Your task to perform on an android device: Open Maps and search for coffee Image 0: 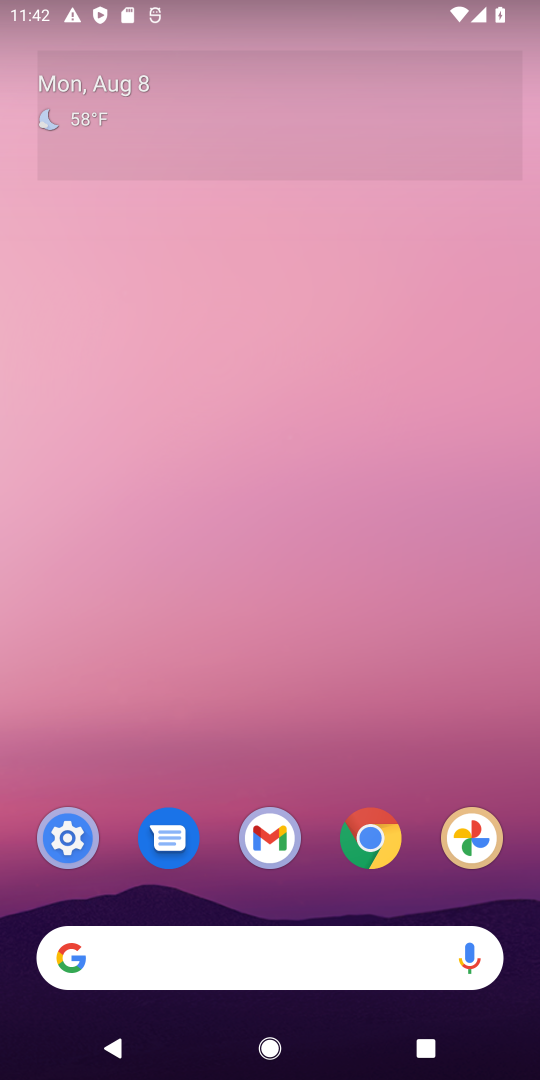
Step 0: press home button
Your task to perform on an android device: Open Maps and search for coffee Image 1: 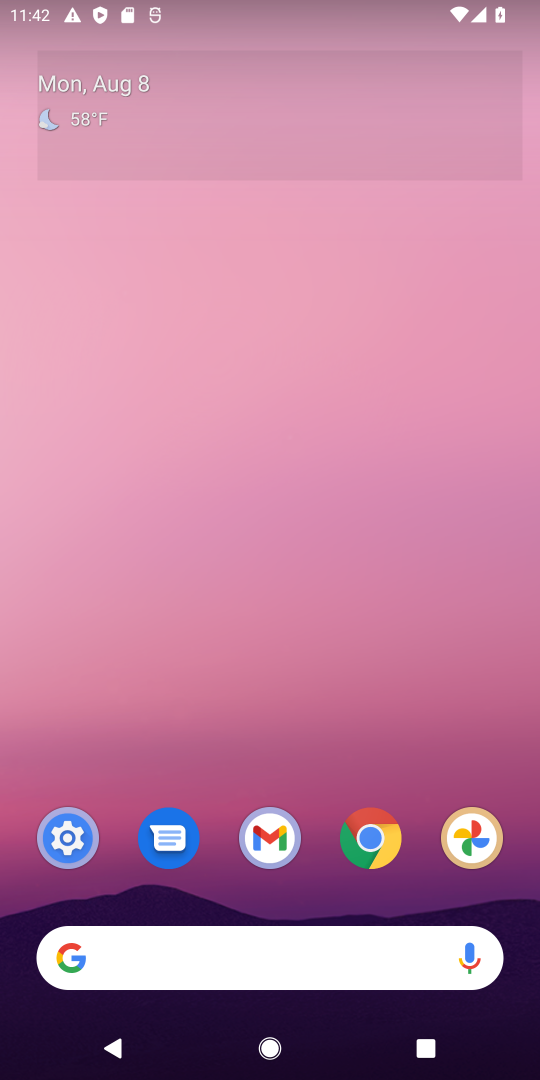
Step 1: drag from (346, 895) to (372, 342)
Your task to perform on an android device: Open Maps and search for coffee Image 2: 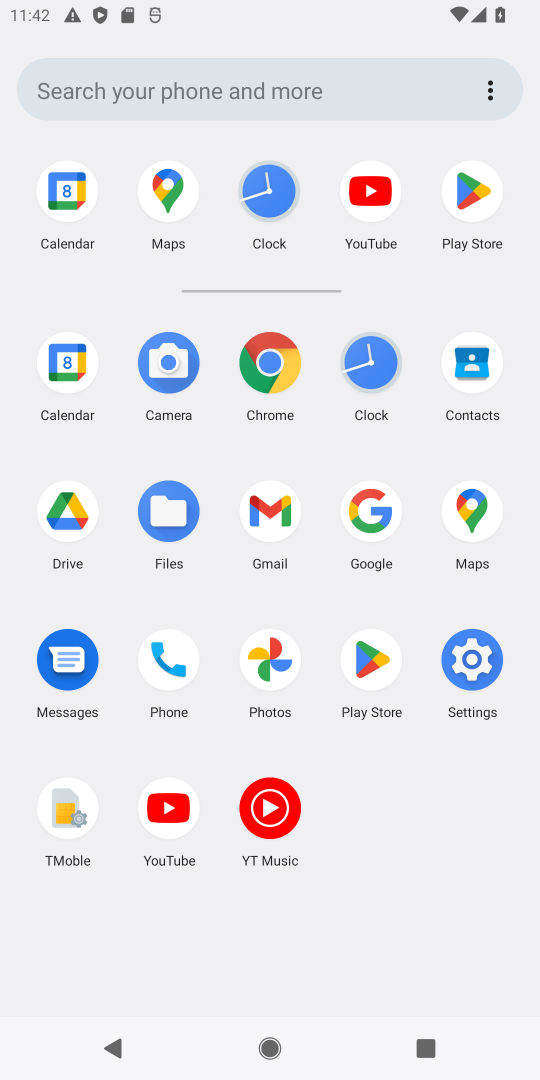
Step 2: click (173, 191)
Your task to perform on an android device: Open Maps and search for coffee Image 3: 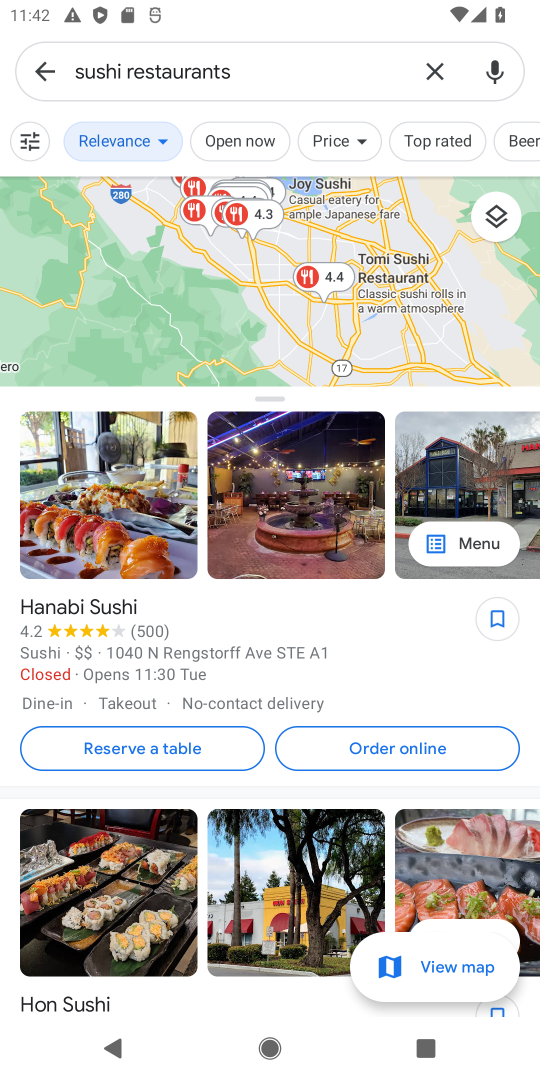
Step 3: click (42, 79)
Your task to perform on an android device: Open Maps and search for coffee Image 4: 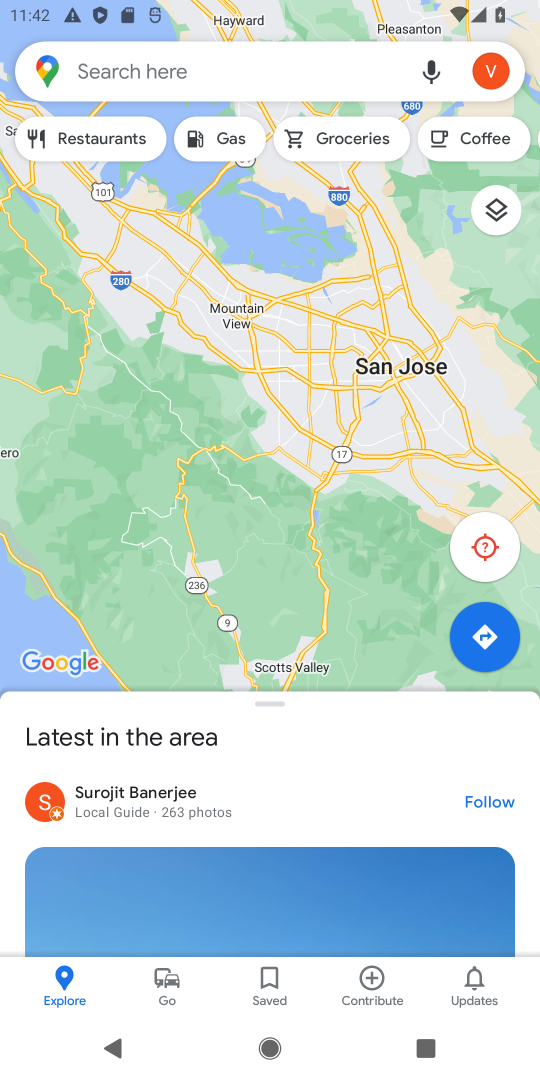
Step 4: click (206, 48)
Your task to perform on an android device: Open Maps and search for coffee Image 5: 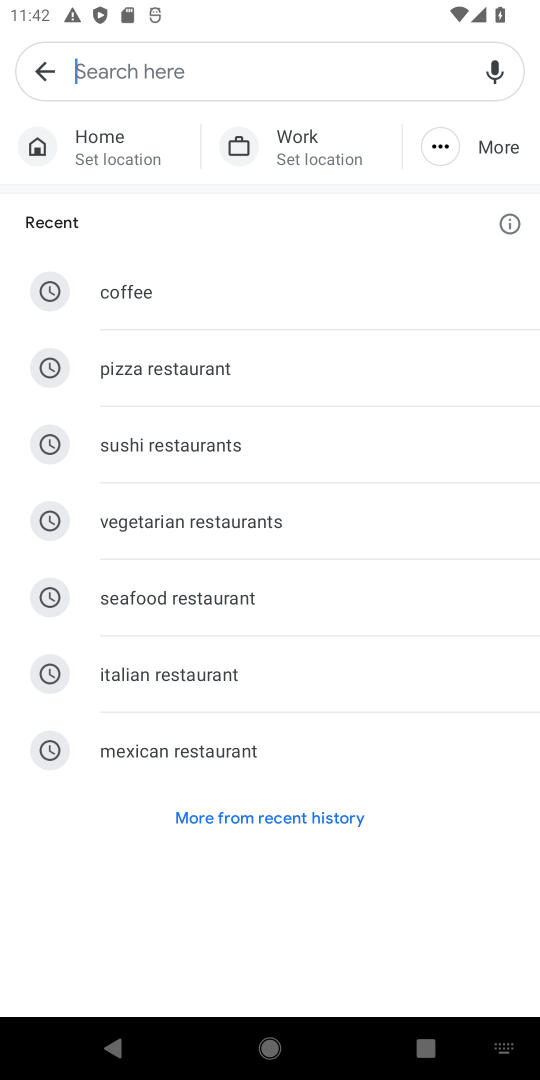
Step 5: click (112, 290)
Your task to perform on an android device: Open Maps and search for coffee Image 6: 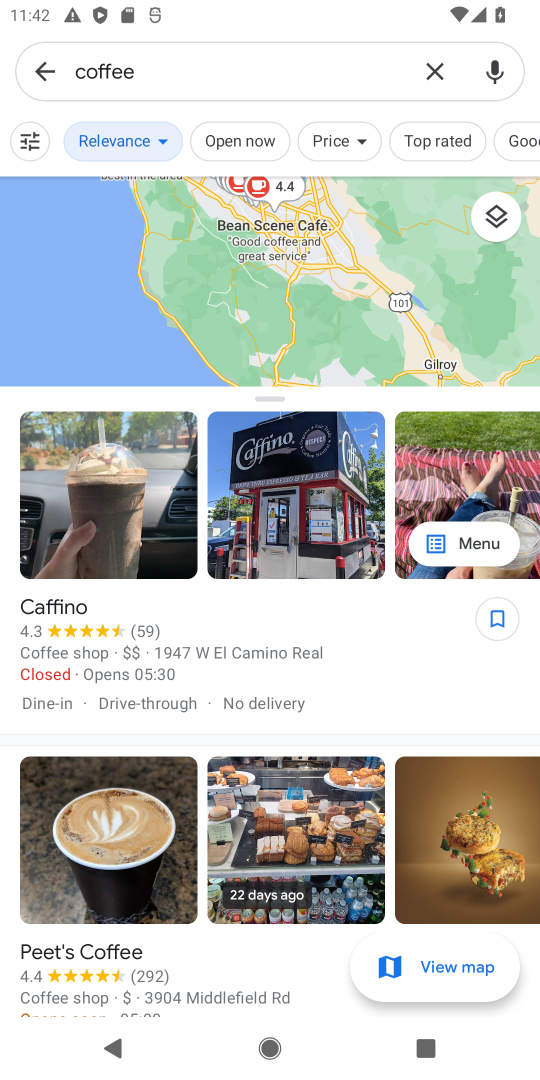
Step 6: task complete